Your task to perform on an android device: Do I have any events this weekend? Image 0: 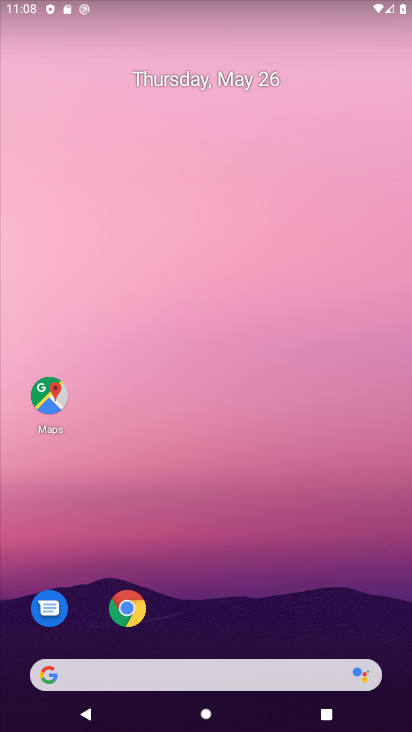
Step 0: drag from (240, 574) to (283, 109)
Your task to perform on an android device: Do I have any events this weekend? Image 1: 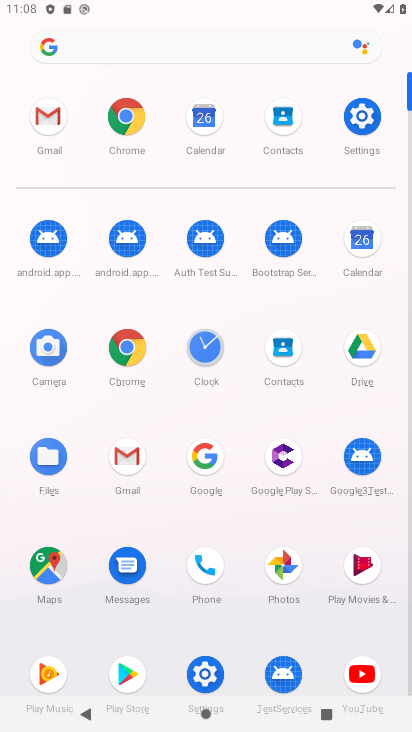
Step 1: click (210, 120)
Your task to perform on an android device: Do I have any events this weekend? Image 2: 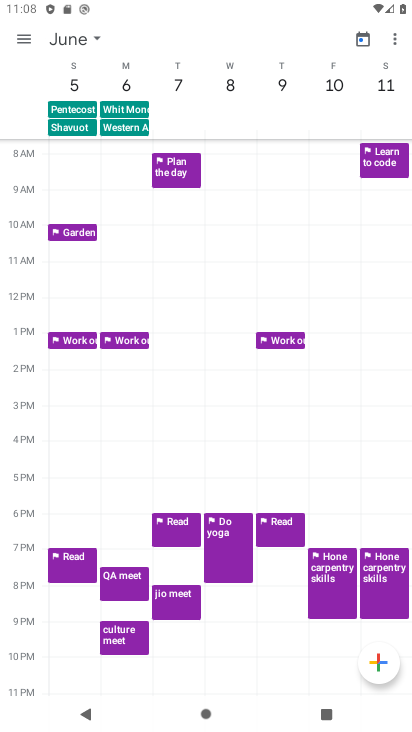
Step 2: click (69, 34)
Your task to perform on an android device: Do I have any events this weekend? Image 3: 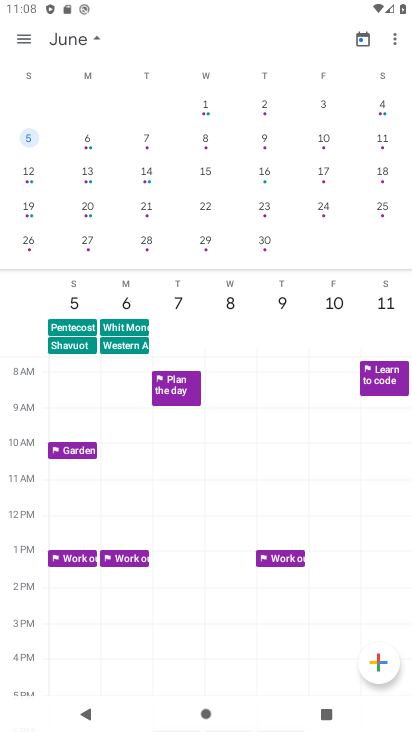
Step 3: drag from (105, 244) to (398, 206)
Your task to perform on an android device: Do I have any events this weekend? Image 4: 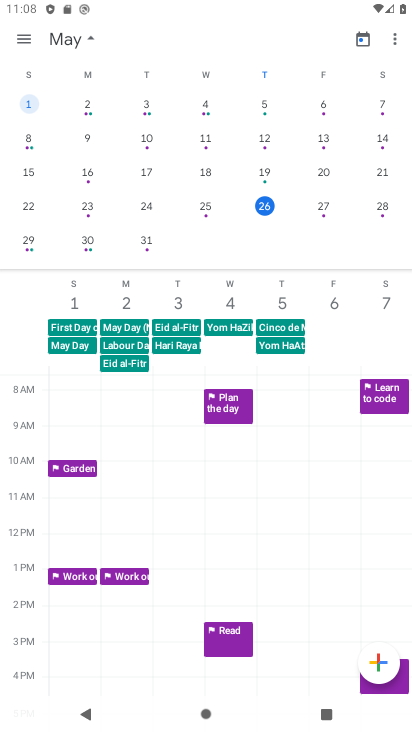
Step 4: click (263, 201)
Your task to perform on an android device: Do I have any events this weekend? Image 5: 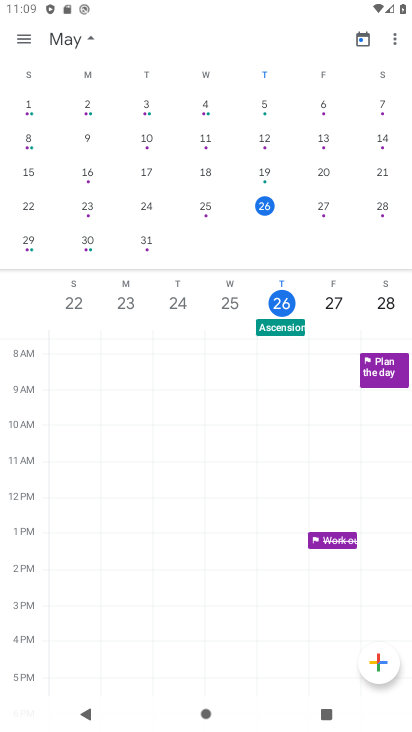
Step 5: task complete